Your task to perform on an android device: Go to eBay Image 0: 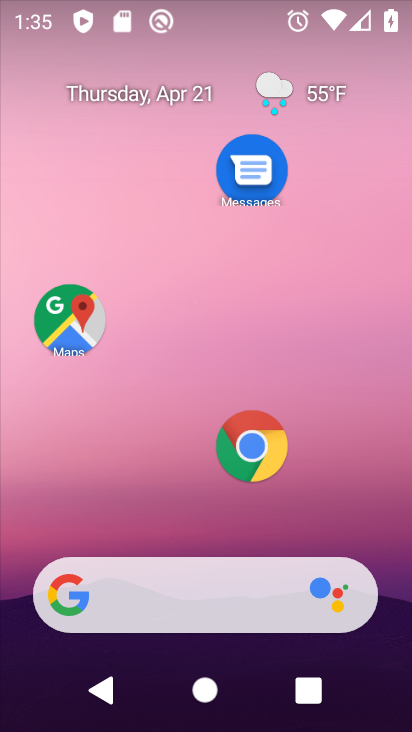
Step 0: click (256, 440)
Your task to perform on an android device: Go to eBay Image 1: 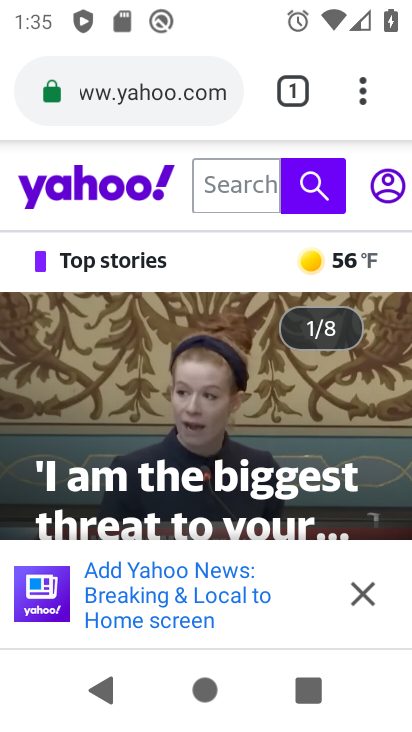
Step 1: click (232, 96)
Your task to perform on an android device: Go to eBay Image 2: 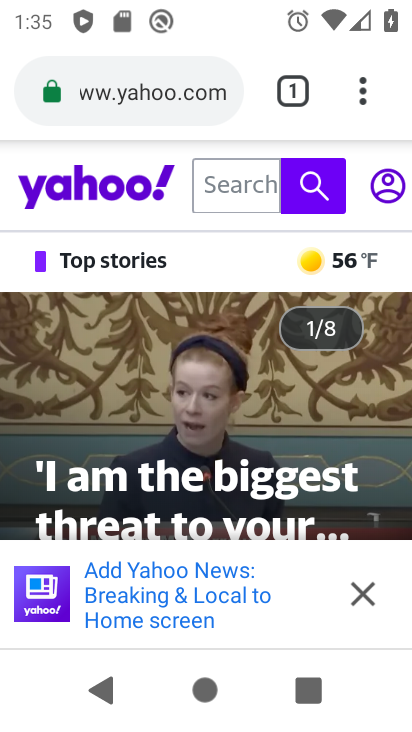
Step 2: click (194, 83)
Your task to perform on an android device: Go to eBay Image 3: 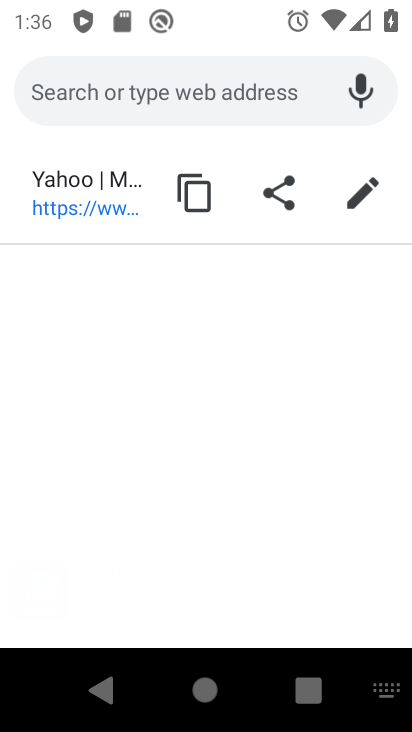
Step 3: type "eBay"
Your task to perform on an android device: Go to eBay Image 4: 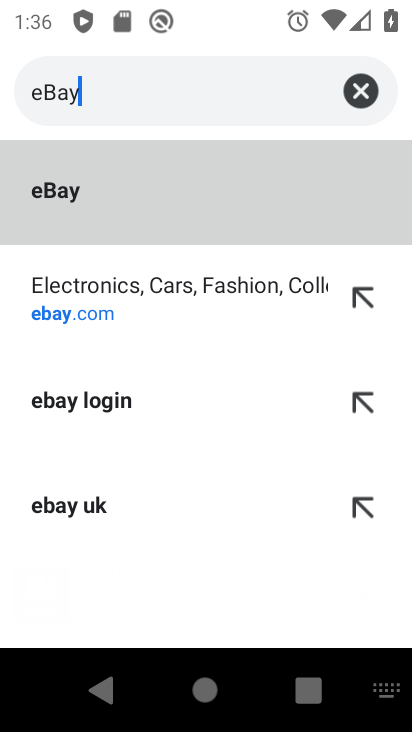
Step 4: type ""
Your task to perform on an android device: Go to eBay Image 5: 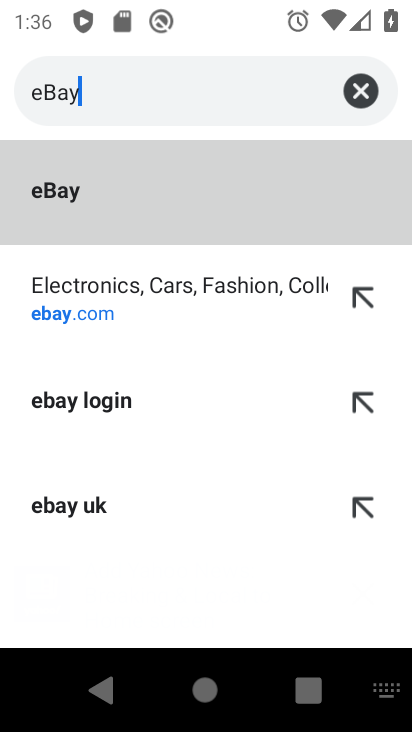
Step 5: click (117, 294)
Your task to perform on an android device: Go to eBay Image 6: 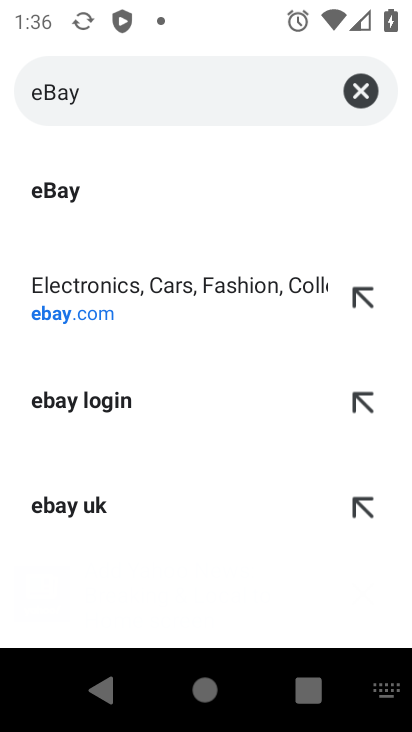
Step 6: click (240, 289)
Your task to perform on an android device: Go to eBay Image 7: 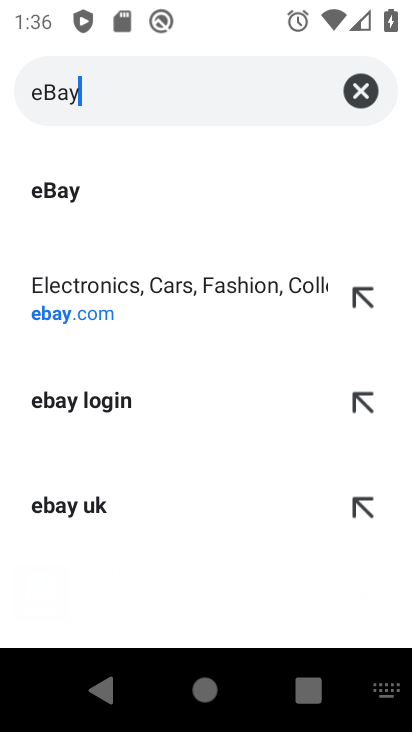
Step 7: click (61, 192)
Your task to perform on an android device: Go to eBay Image 8: 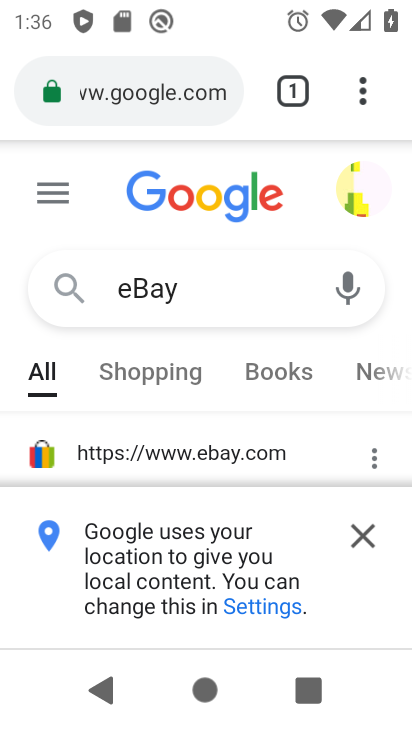
Step 8: click (360, 537)
Your task to perform on an android device: Go to eBay Image 9: 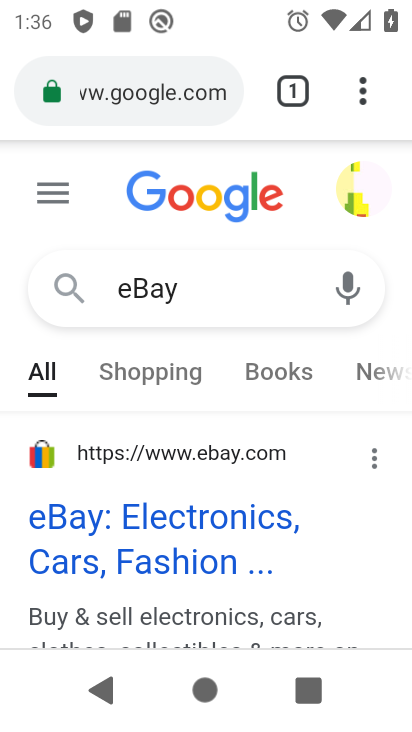
Step 9: task complete